Your task to perform on an android device: check data usage Image 0: 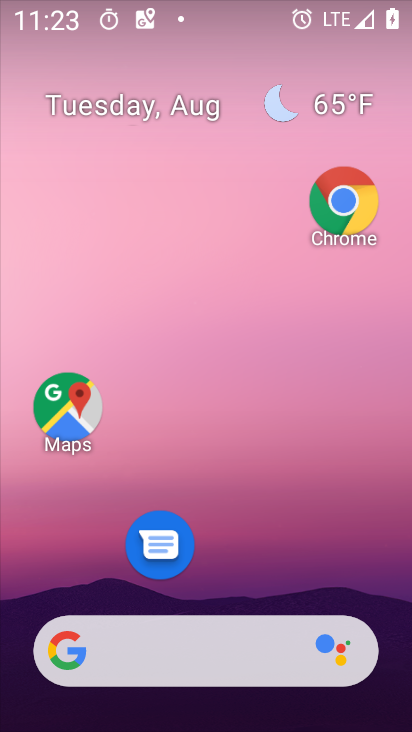
Step 0: drag from (277, 547) to (275, 155)
Your task to perform on an android device: check data usage Image 1: 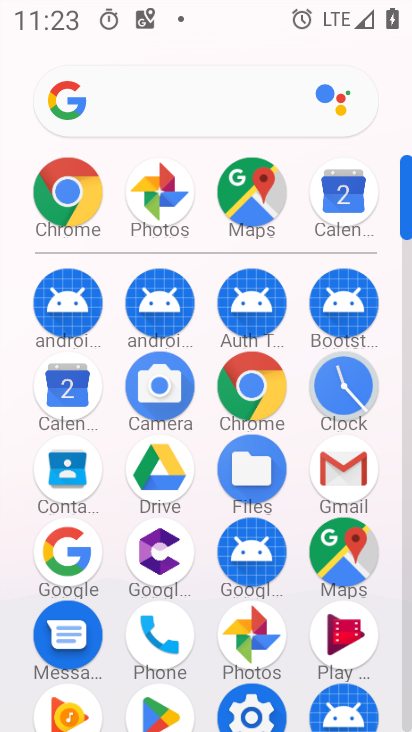
Step 1: drag from (220, 445) to (261, 74)
Your task to perform on an android device: check data usage Image 2: 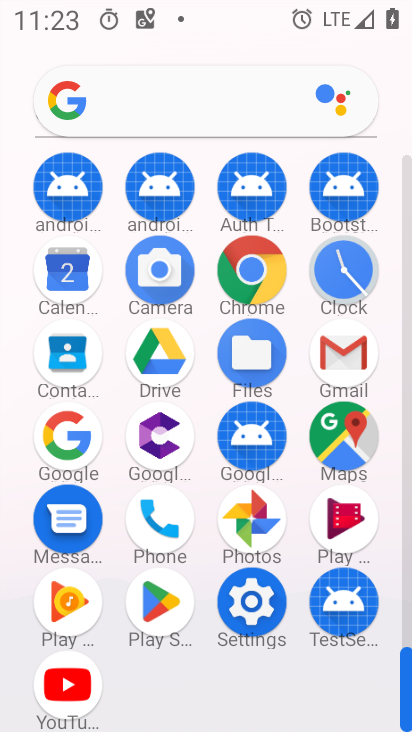
Step 2: click (257, 604)
Your task to perform on an android device: check data usage Image 3: 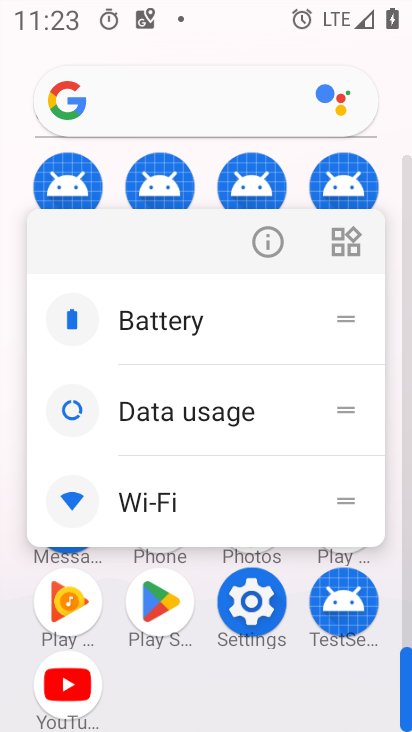
Step 3: click (240, 665)
Your task to perform on an android device: check data usage Image 4: 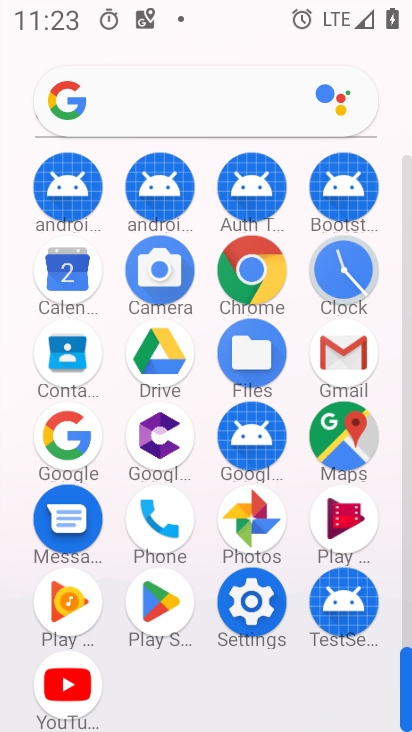
Step 4: click (264, 610)
Your task to perform on an android device: check data usage Image 5: 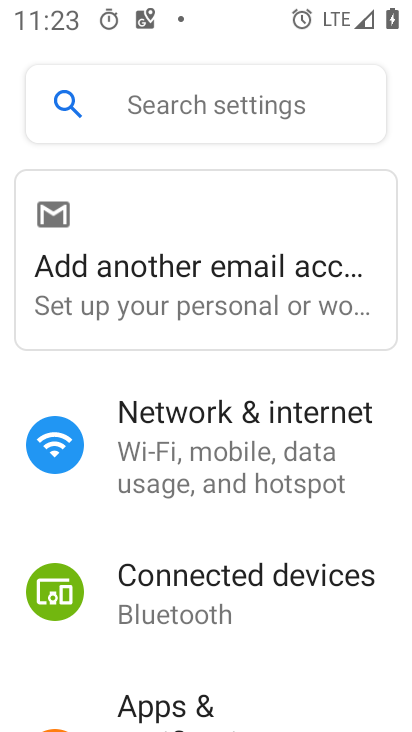
Step 5: drag from (217, 520) to (304, 149)
Your task to perform on an android device: check data usage Image 6: 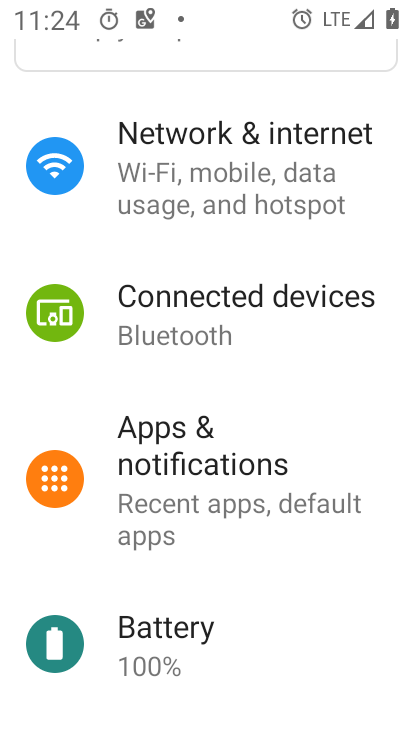
Step 6: click (219, 189)
Your task to perform on an android device: check data usage Image 7: 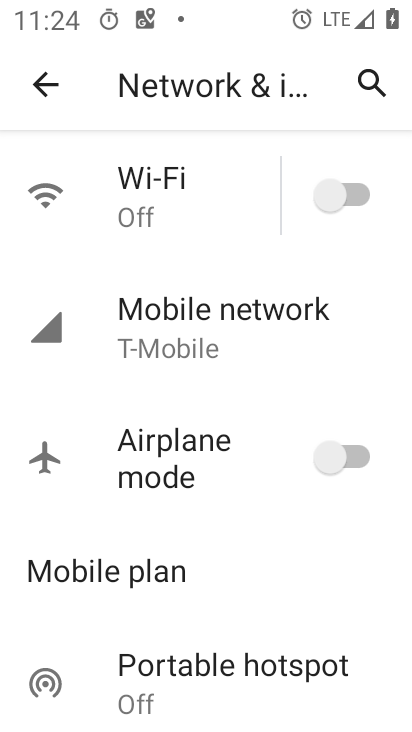
Step 7: click (202, 322)
Your task to perform on an android device: check data usage Image 8: 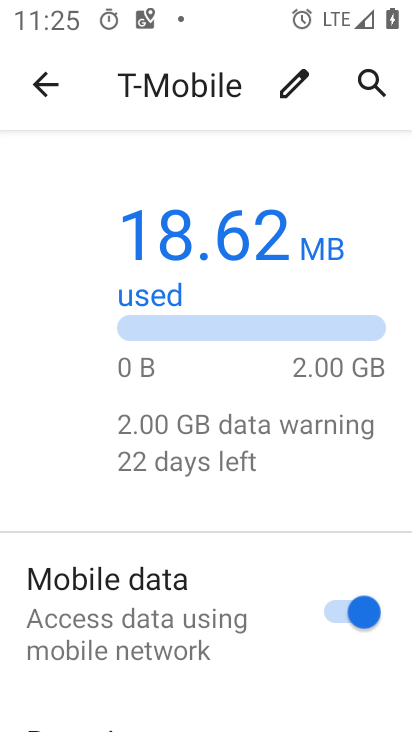
Step 8: drag from (200, 395) to (232, 135)
Your task to perform on an android device: check data usage Image 9: 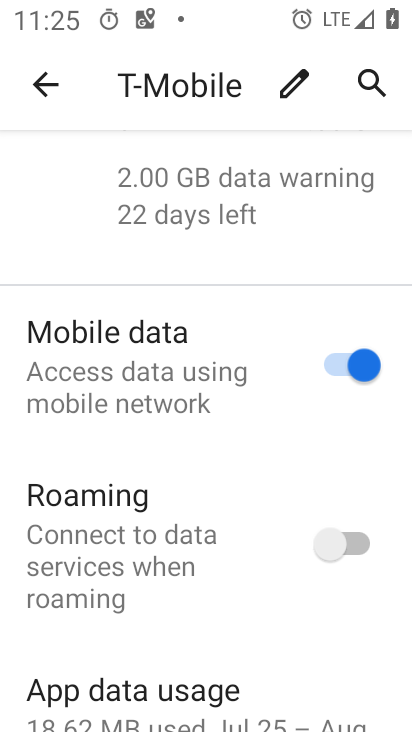
Step 9: click (255, 73)
Your task to perform on an android device: check data usage Image 10: 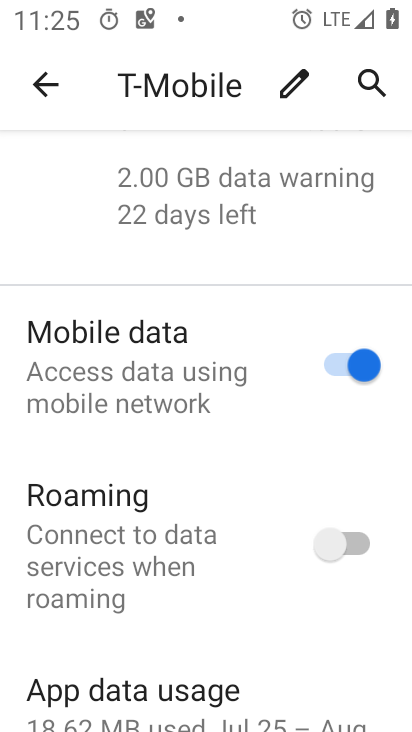
Step 10: click (220, 242)
Your task to perform on an android device: check data usage Image 11: 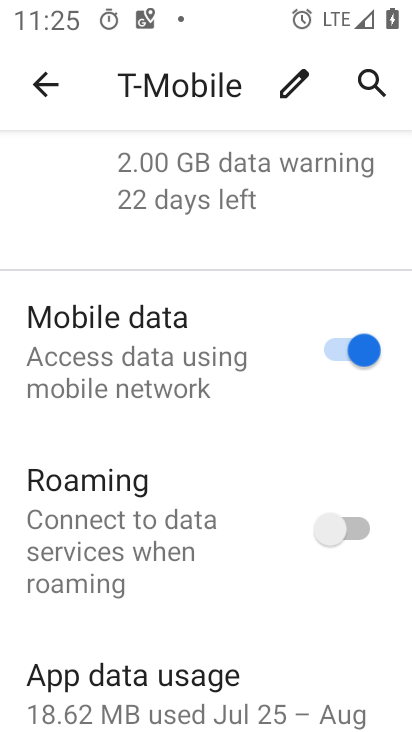
Step 11: click (244, 689)
Your task to perform on an android device: check data usage Image 12: 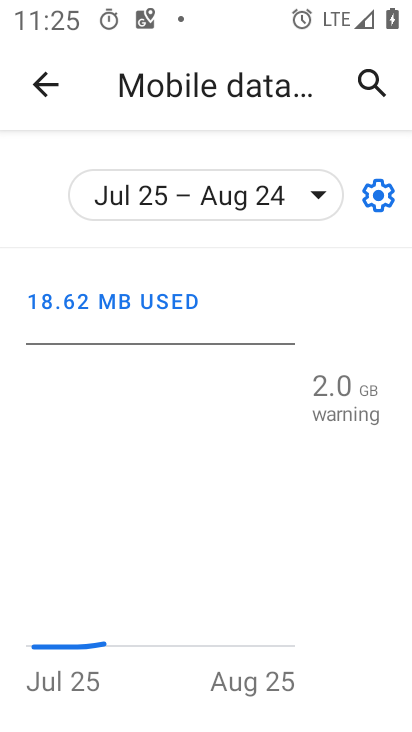
Step 12: task complete